Your task to perform on an android device: Go to display settings Image 0: 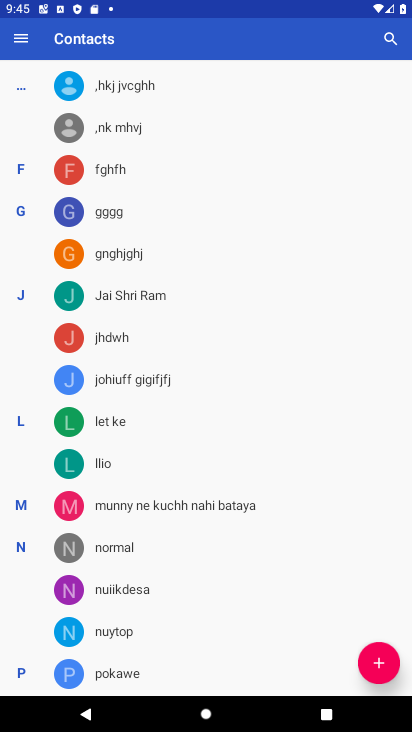
Step 0: press home button
Your task to perform on an android device: Go to display settings Image 1: 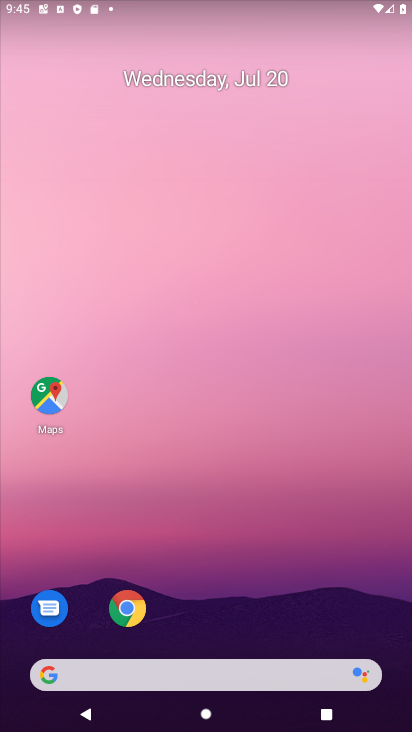
Step 1: drag from (271, 557) to (191, 124)
Your task to perform on an android device: Go to display settings Image 2: 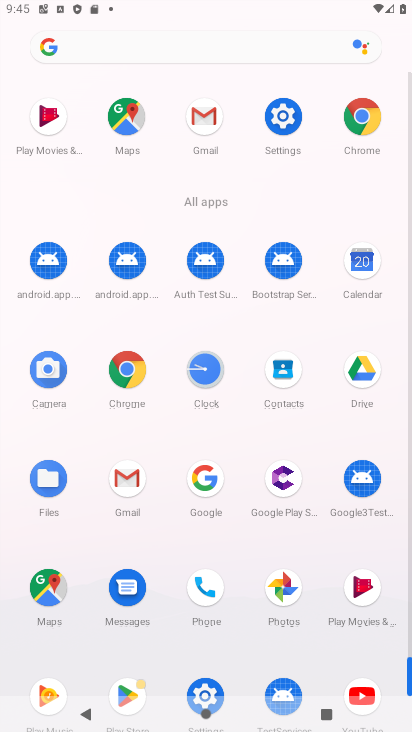
Step 2: click (293, 128)
Your task to perform on an android device: Go to display settings Image 3: 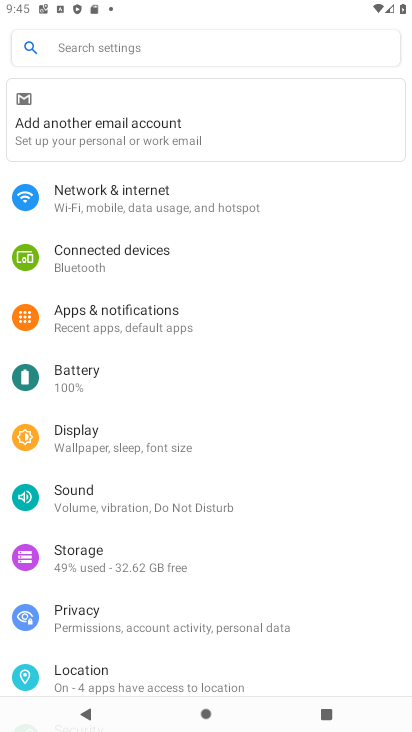
Step 3: click (88, 442)
Your task to perform on an android device: Go to display settings Image 4: 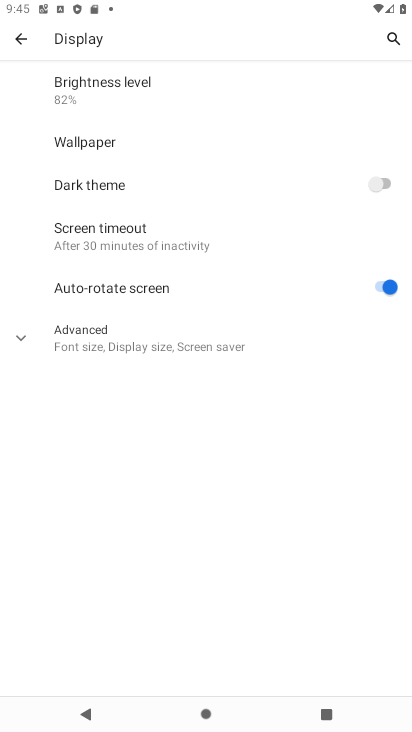
Step 4: task complete